Your task to perform on an android device: Go to notification settings Image 0: 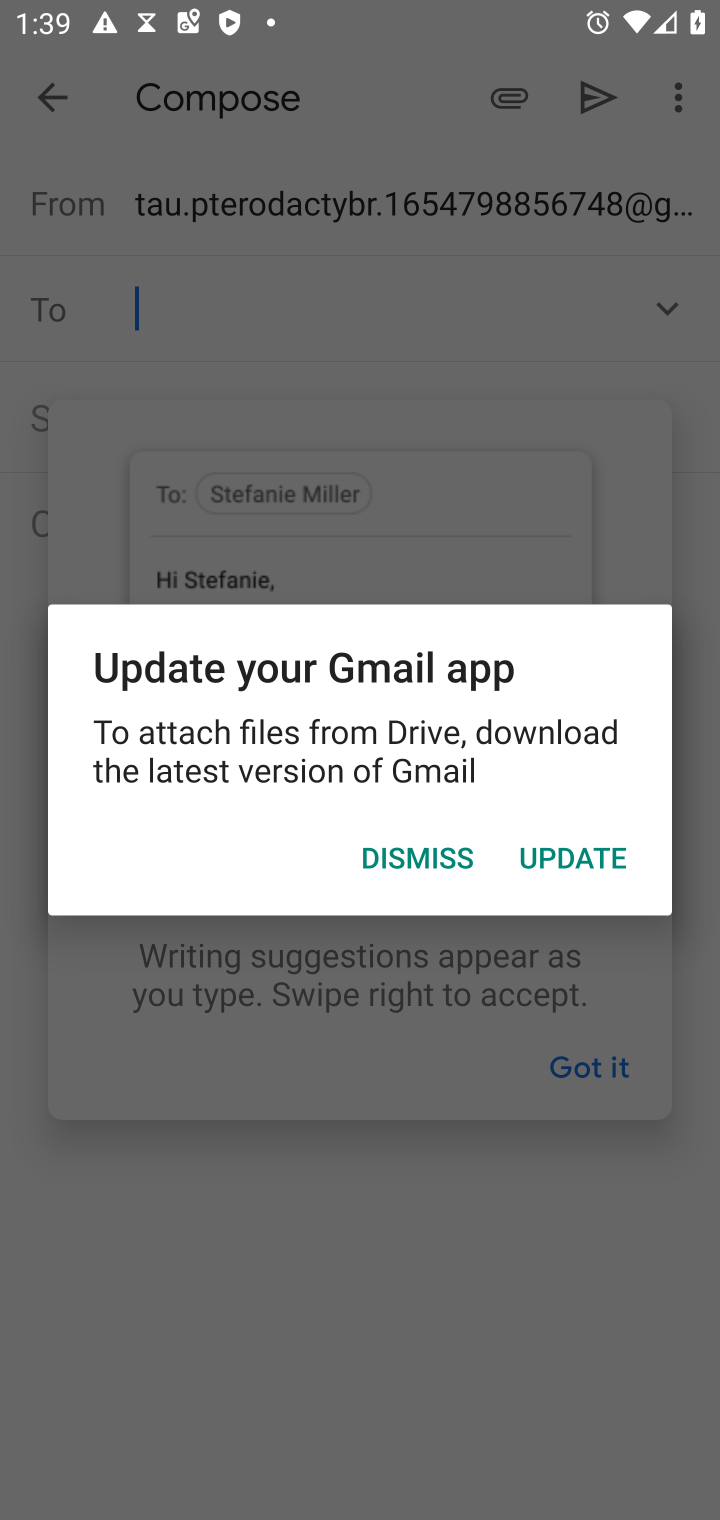
Step 0: press home button
Your task to perform on an android device: Go to notification settings Image 1: 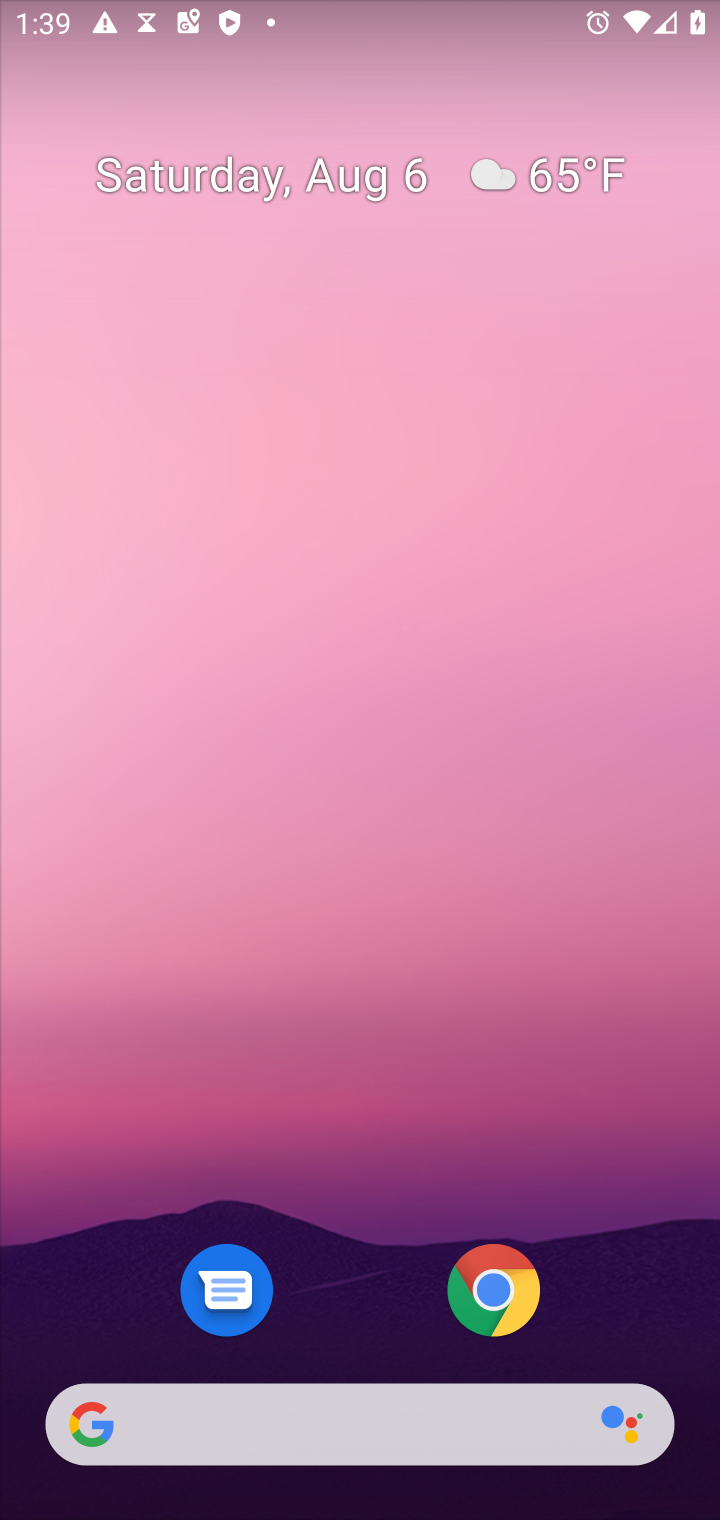
Step 1: drag from (491, 580) to (550, 167)
Your task to perform on an android device: Go to notification settings Image 2: 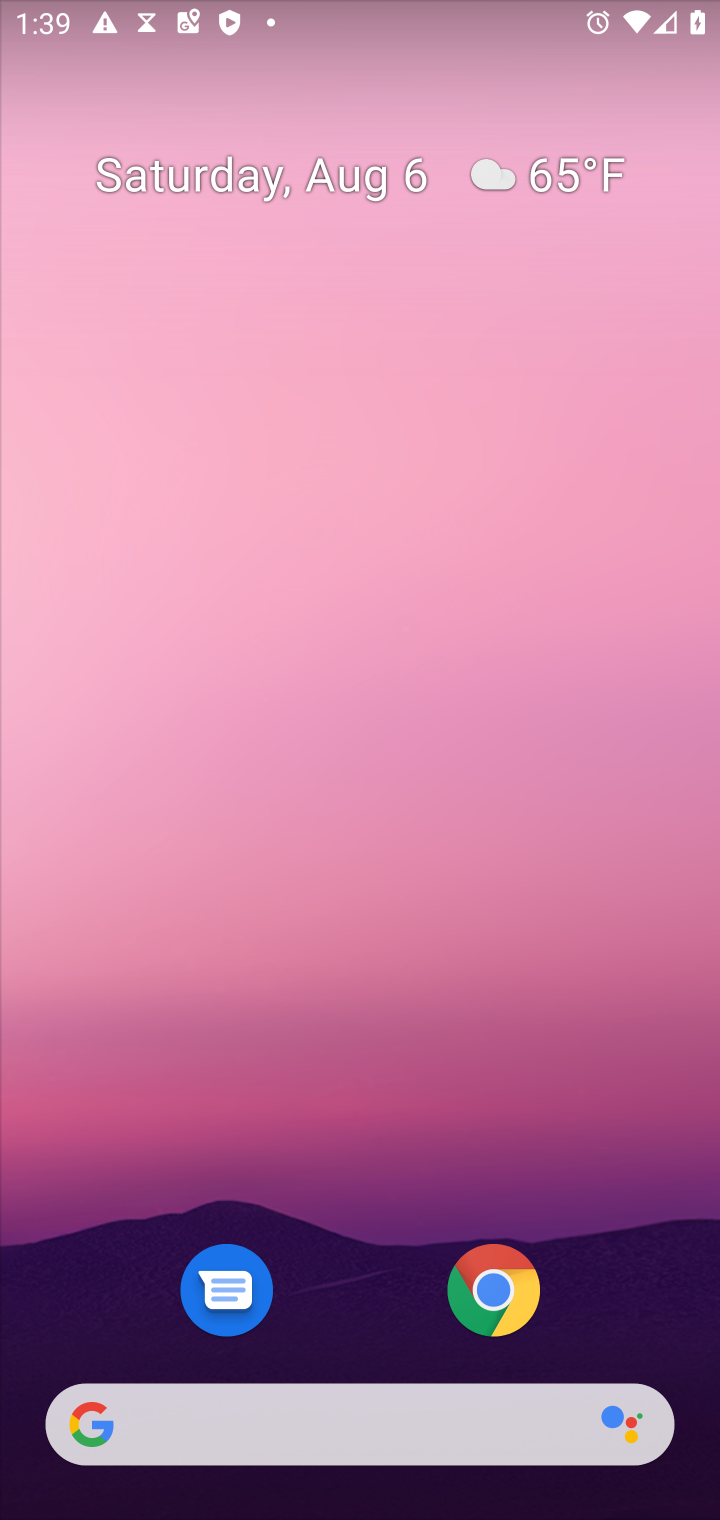
Step 2: drag from (377, 1279) to (524, 83)
Your task to perform on an android device: Go to notification settings Image 3: 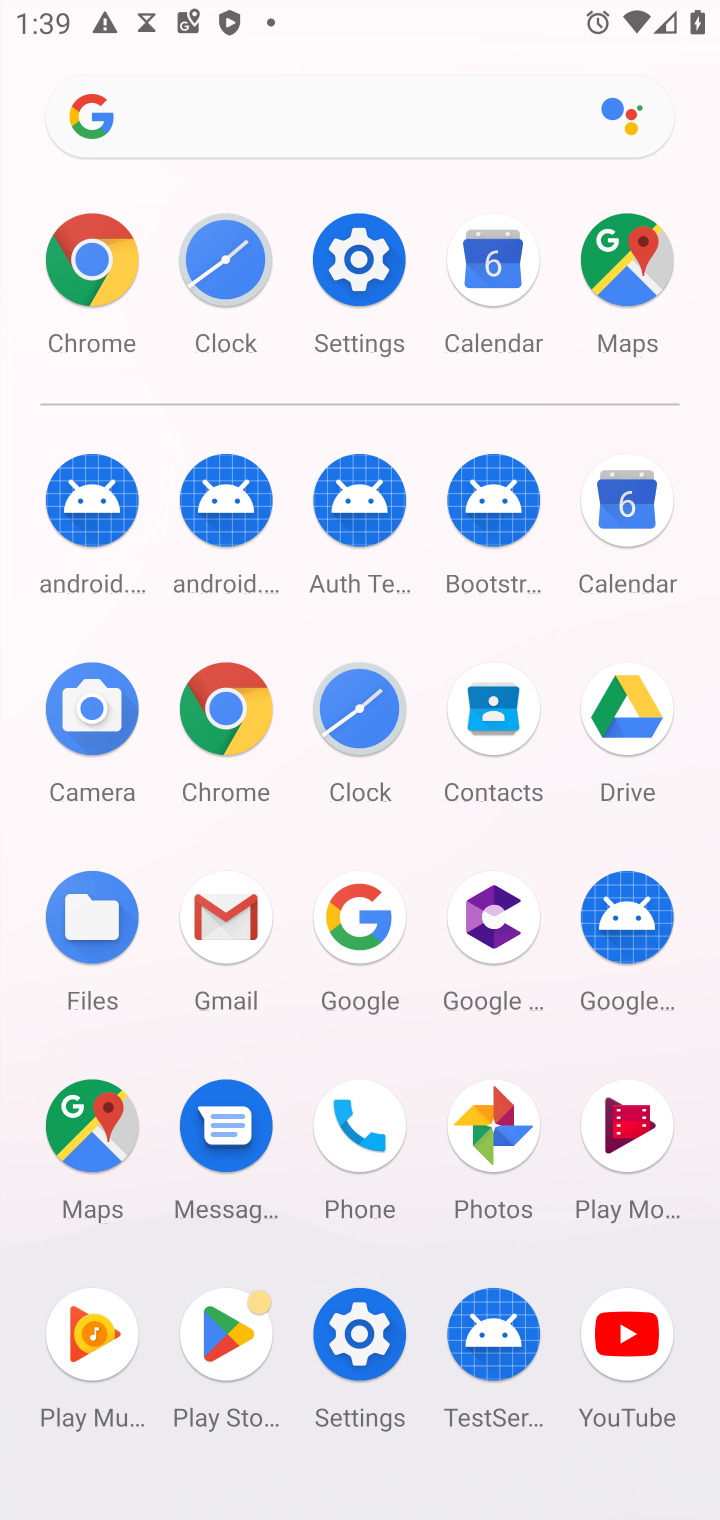
Step 3: click (333, 240)
Your task to perform on an android device: Go to notification settings Image 4: 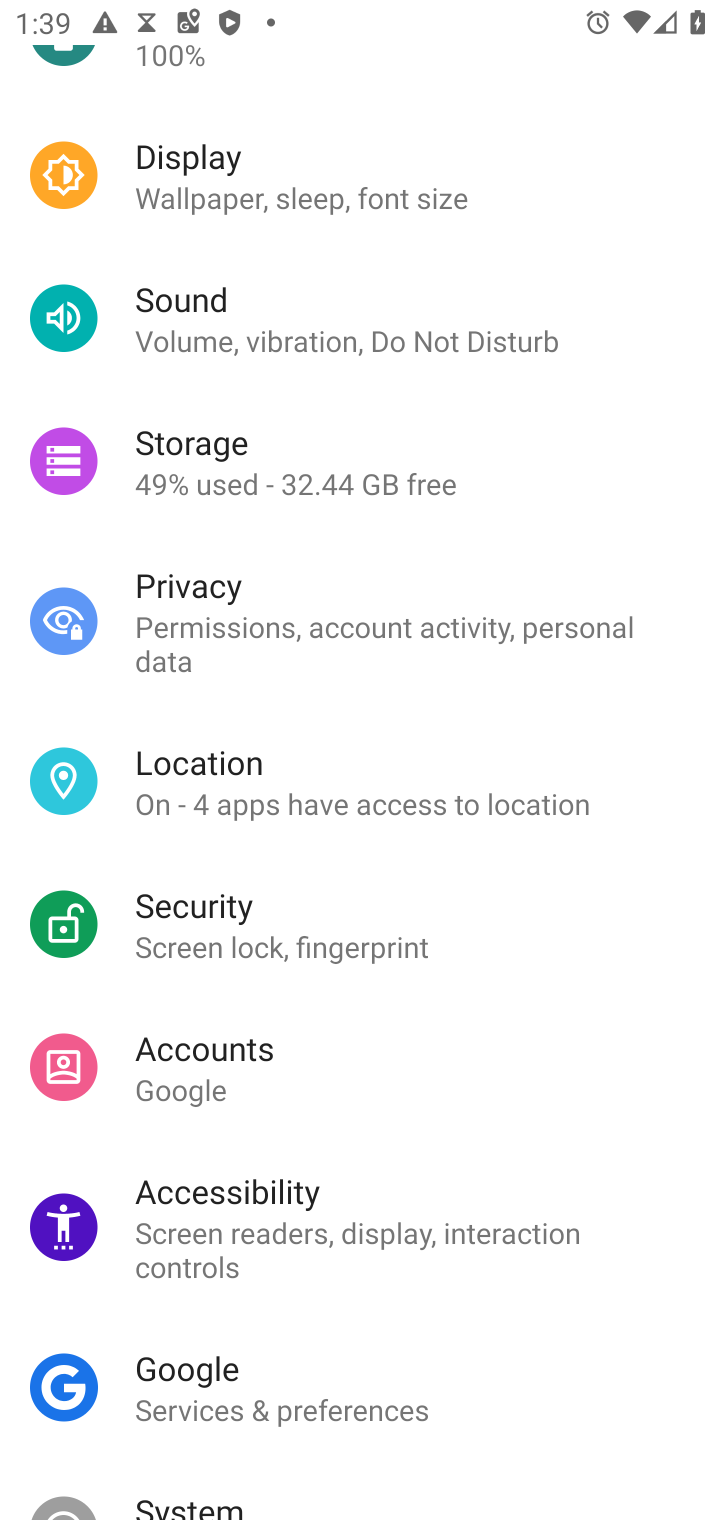
Step 4: drag from (287, 134) to (400, 1157)
Your task to perform on an android device: Go to notification settings Image 5: 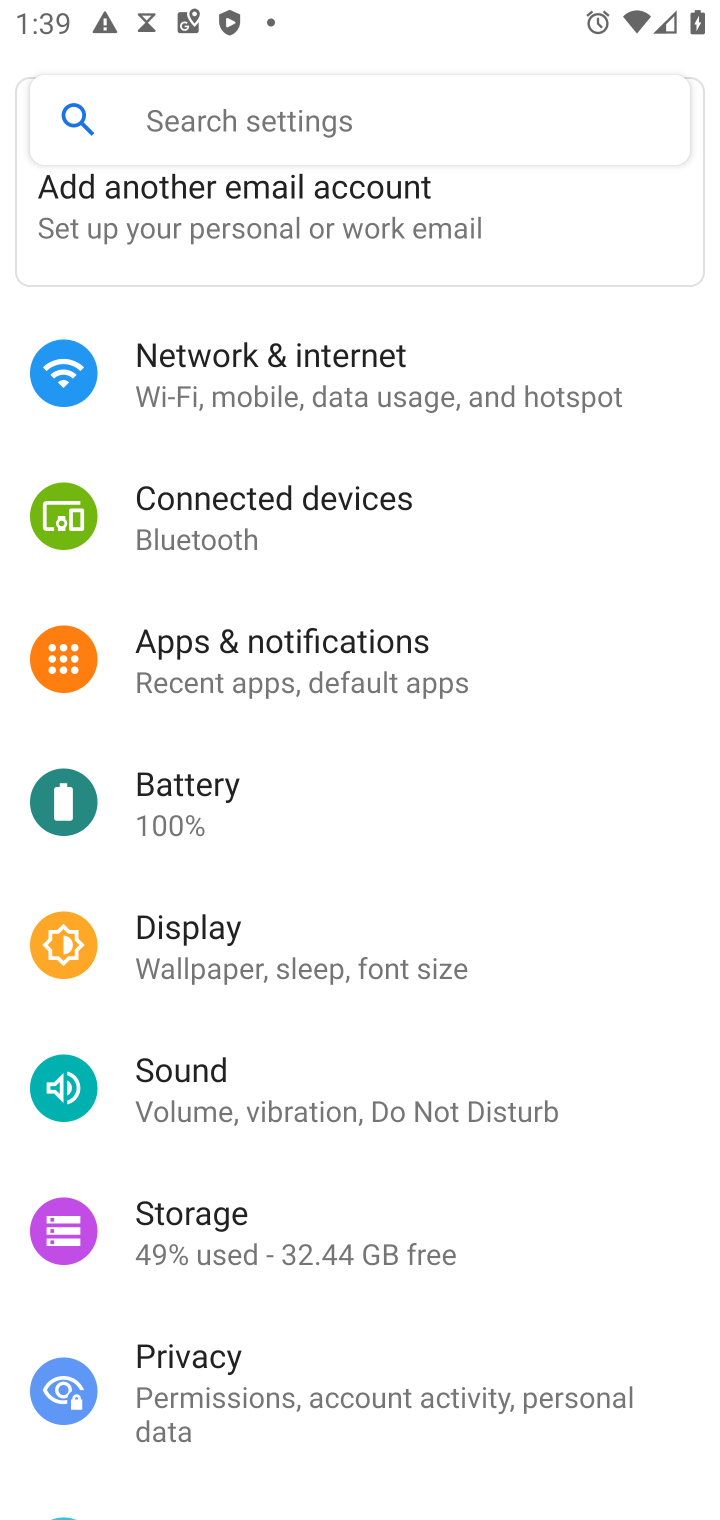
Step 5: click (298, 655)
Your task to perform on an android device: Go to notification settings Image 6: 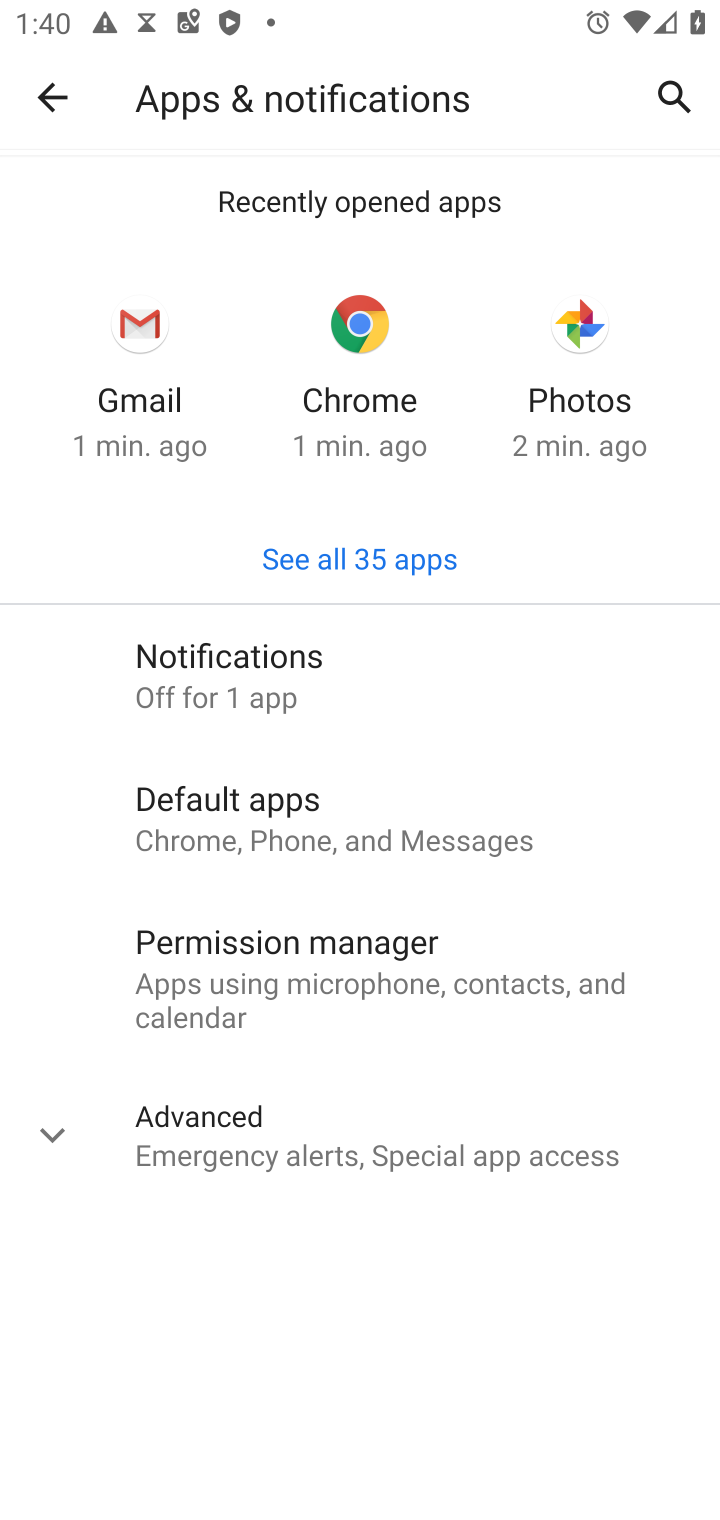
Step 6: click (46, 1162)
Your task to perform on an android device: Go to notification settings Image 7: 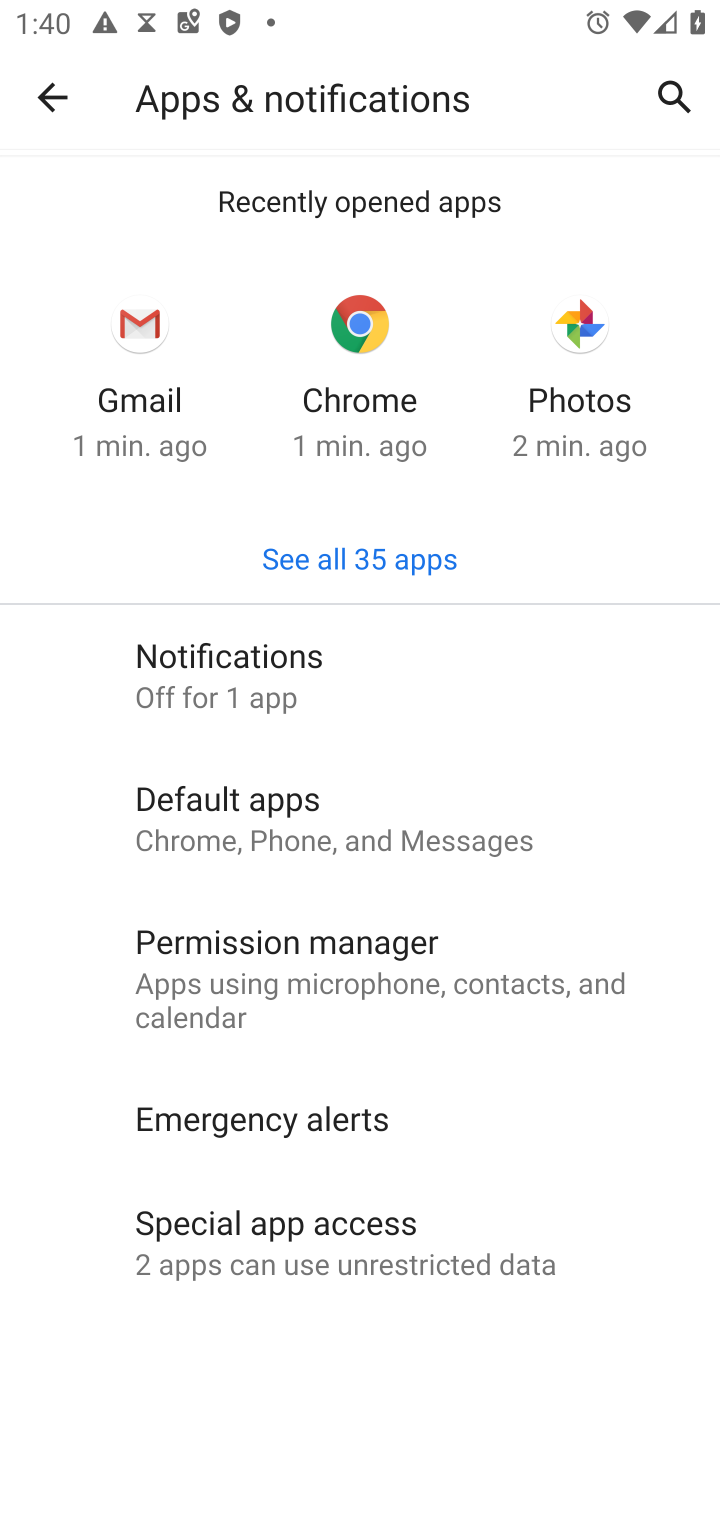
Step 7: click (298, 664)
Your task to perform on an android device: Go to notification settings Image 8: 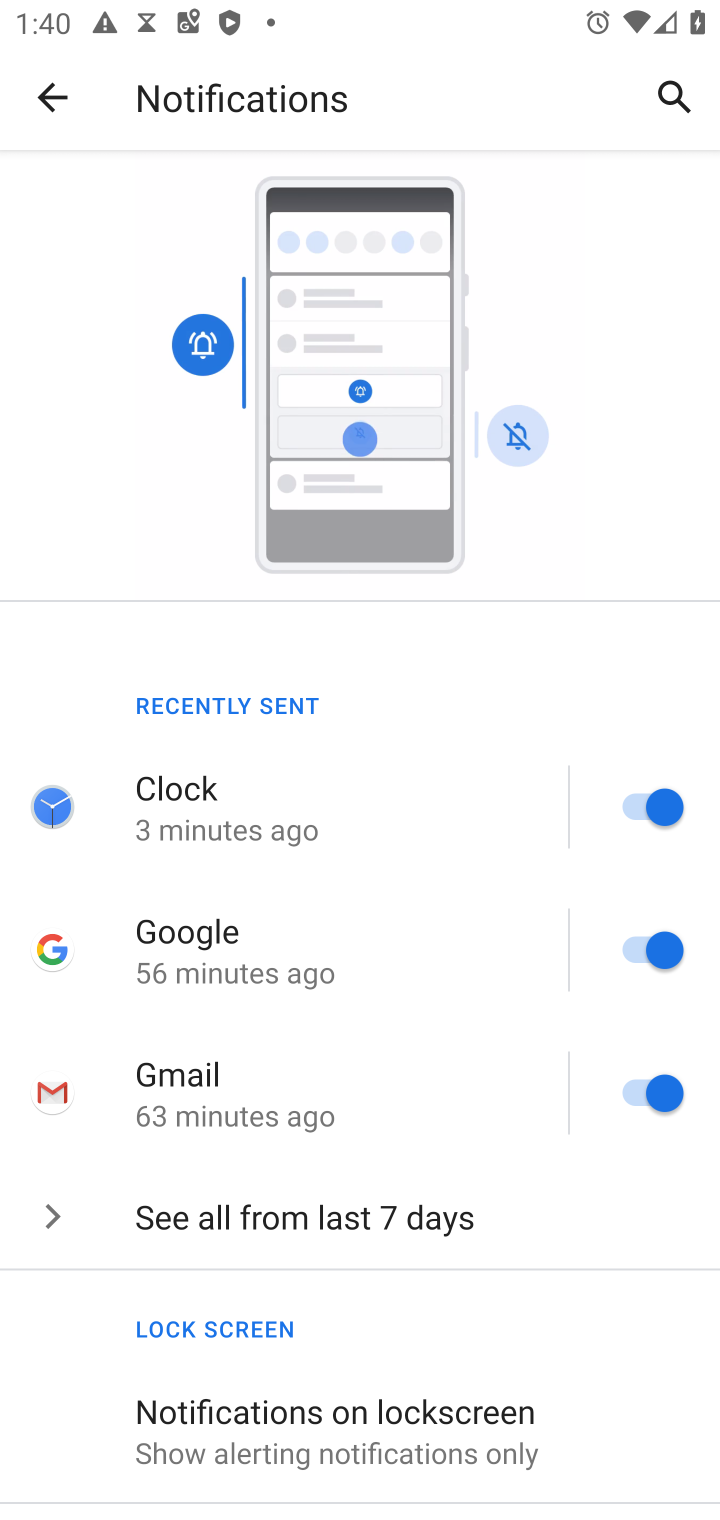
Step 8: drag from (377, 1411) to (453, 409)
Your task to perform on an android device: Go to notification settings Image 9: 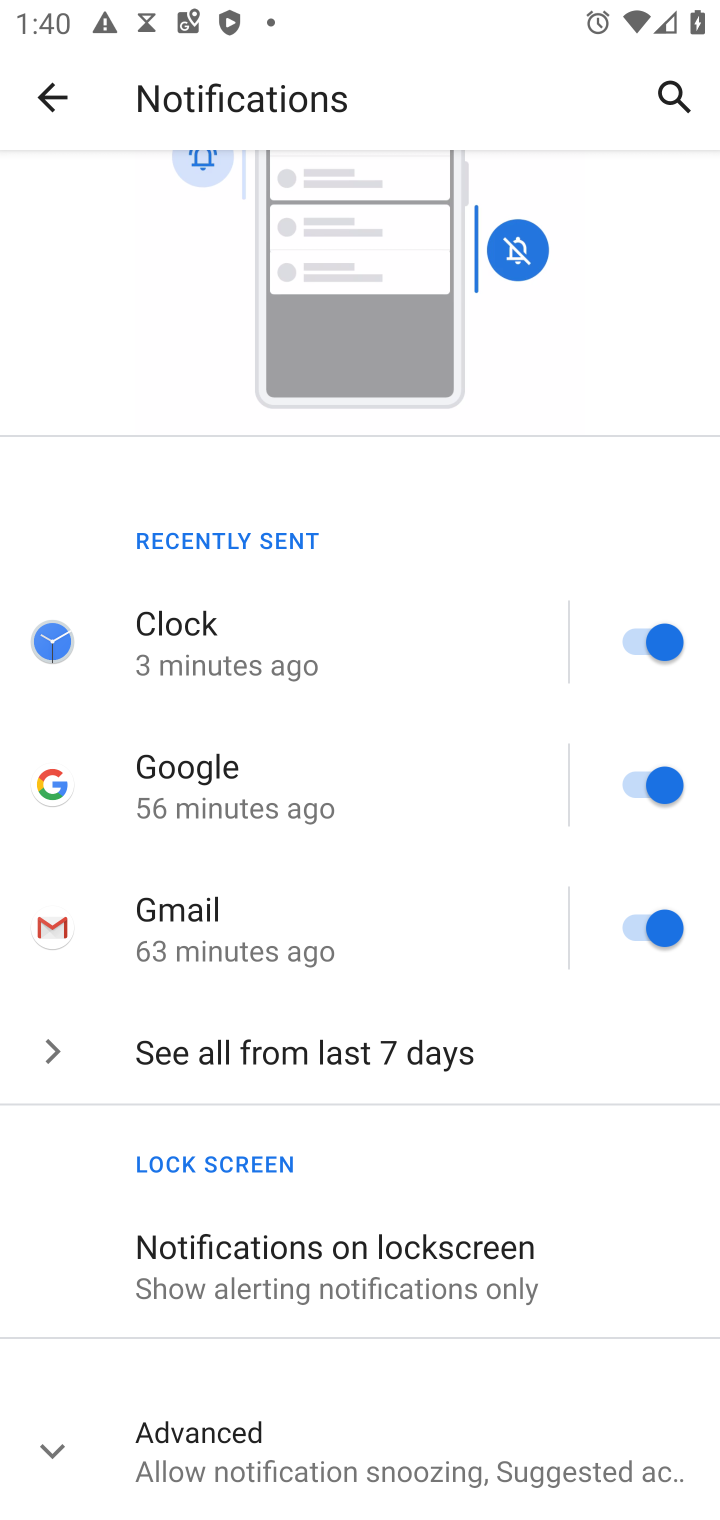
Step 9: click (217, 1438)
Your task to perform on an android device: Go to notification settings Image 10: 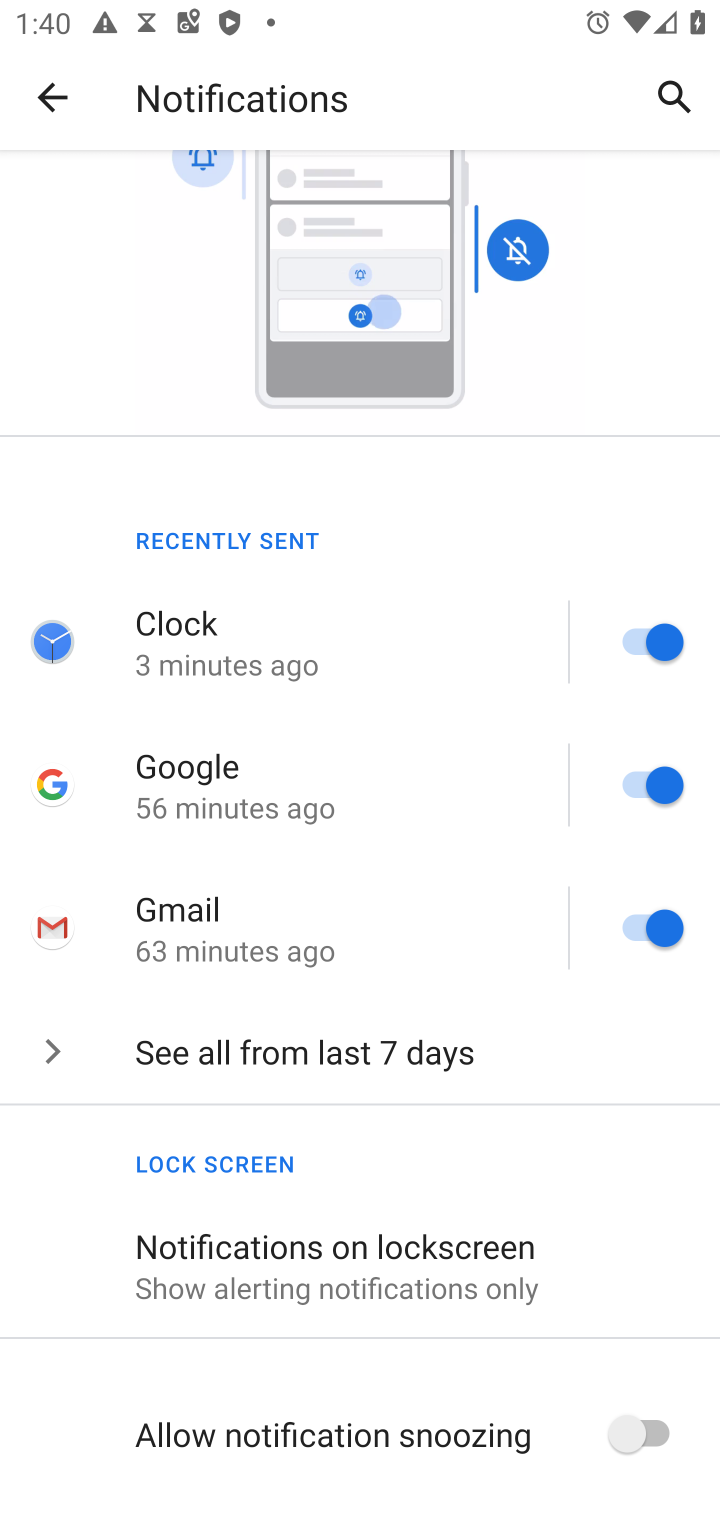
Step 10: task complete